Your task to perform on an android device: choose inbox layout in the gmail app Image 0: 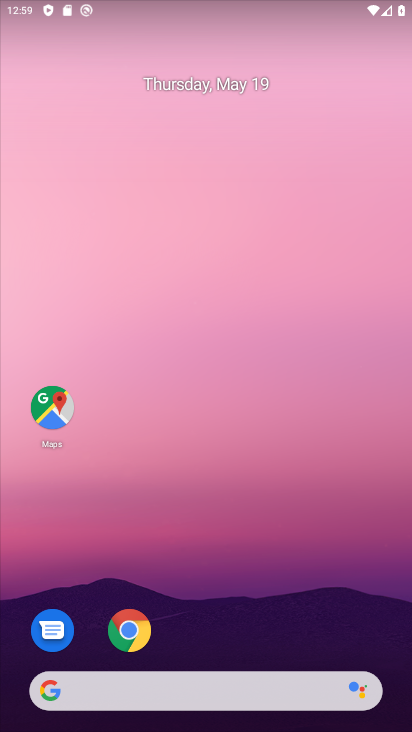
Step 0: drag from (270, 619) to (109, 118)
Your task to perform on an android device: choose inbox layout in the gmail app Image 1: 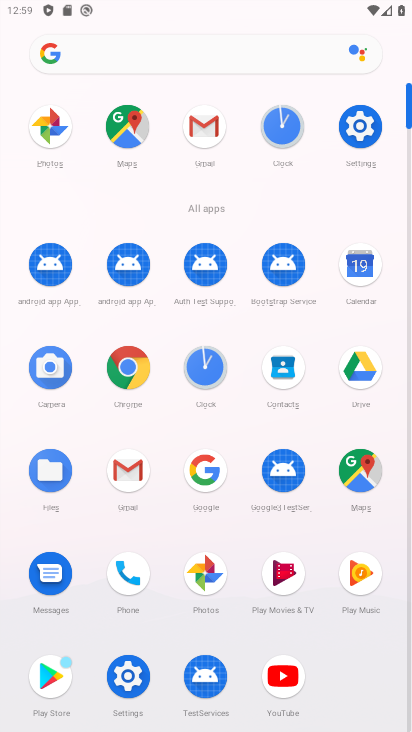
Step 1: click (191, 133)
Your task to perform on an android device: choose inbox layout in the gmail app Image 2: 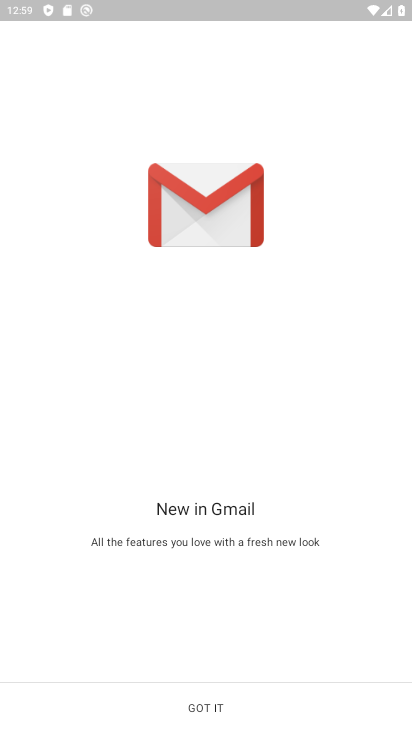
Step 2: click (252, 699)
Your task to perform on an android device: choose inbox layout in the gmail app Image 3: 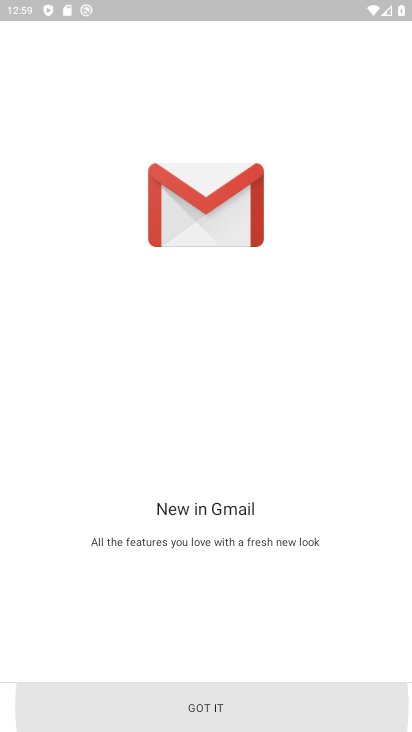
Step 3: click (252, 699)
Your task to perform on an android device: choose inbox layout in the gmail app Image 4: 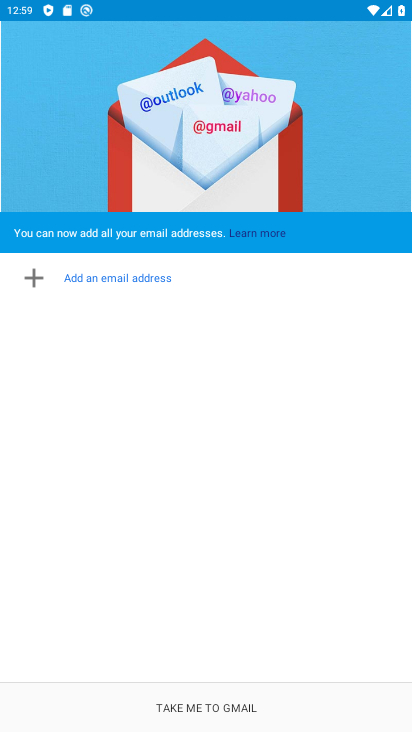
Step 4: click (252, 699)
Your task to perform on an android device: choose inbox layout in the gmail app Image 5: 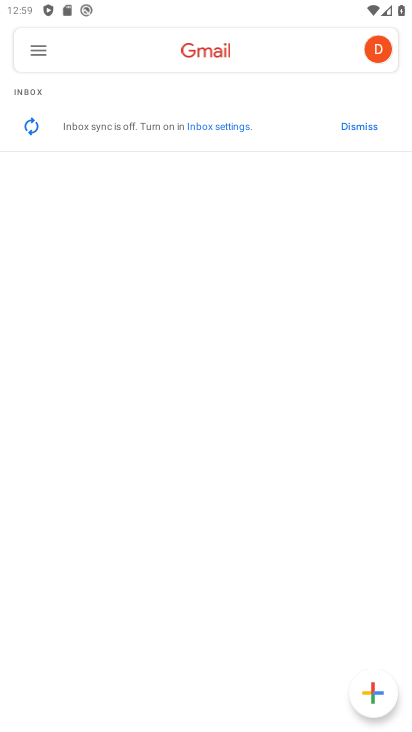
Step 5: click (28, 57)
Your task to perform on an android device: choose inbox layout in the gmail app Image 6: 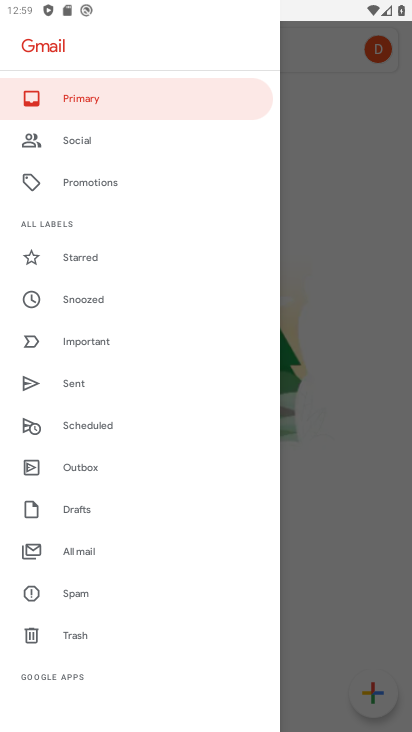
Step 6: drag from (156, 669) to (71, 253)
Your task to perform on an android device: choose inbox layout in the gmail app Image 7: 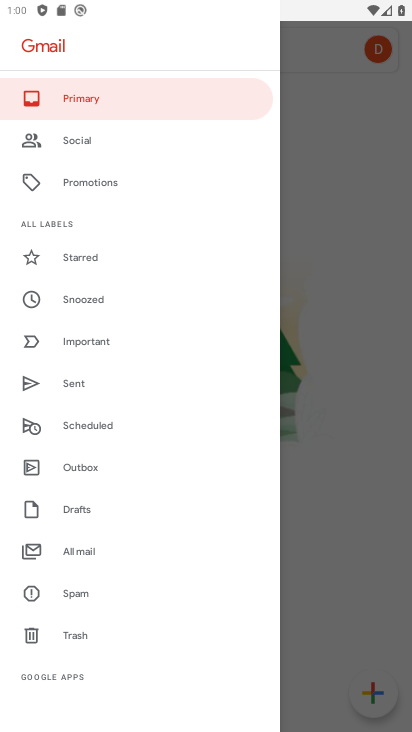
Step 7: drag from (81, 665) to (113, 311)
Your task to perform on an android device: choose inbox layout in the gmail app Image 8: 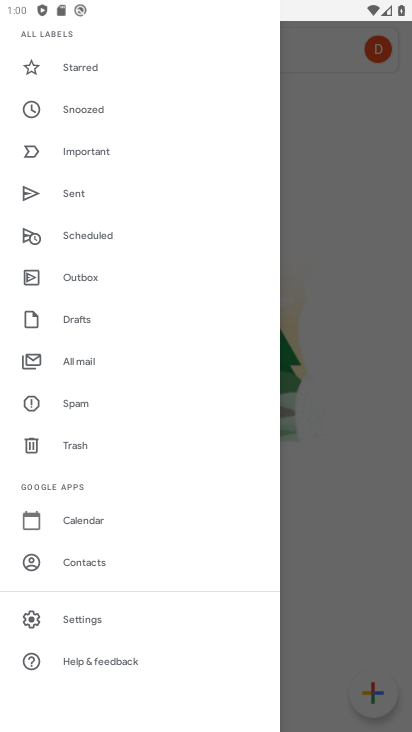
Step 8: click (70, 623)
Your task to perform on an android device: choose inbox layout in the gmail app Image 9: 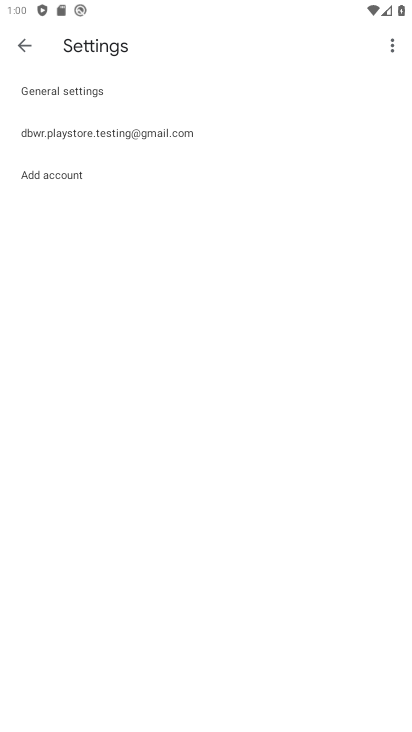
Step 9: click (187, 154)
Your task to perform on an android device: choose inbox layout in the gmail app Image 10: 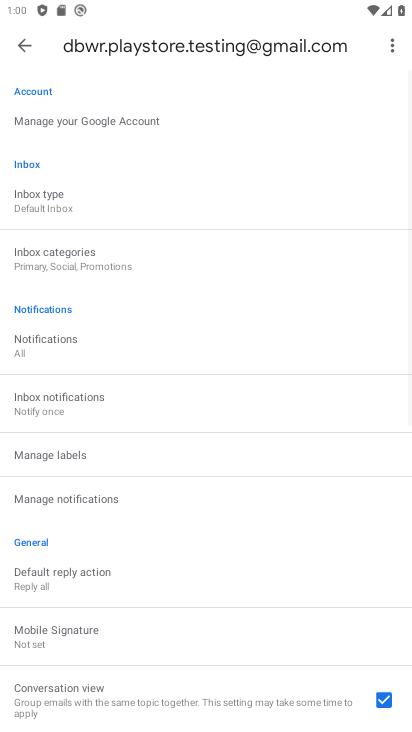
Step 10: click (46, 204)
Your task to perform on an android device: choose inbox layout in the gmail app Image 11: 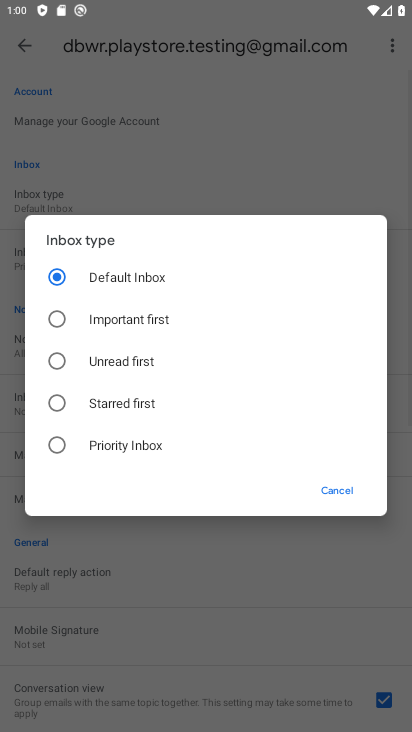
Step 11: click (100, 371)
Your task to perform on an android device: choose inbox layout in the gmail app Image 12: 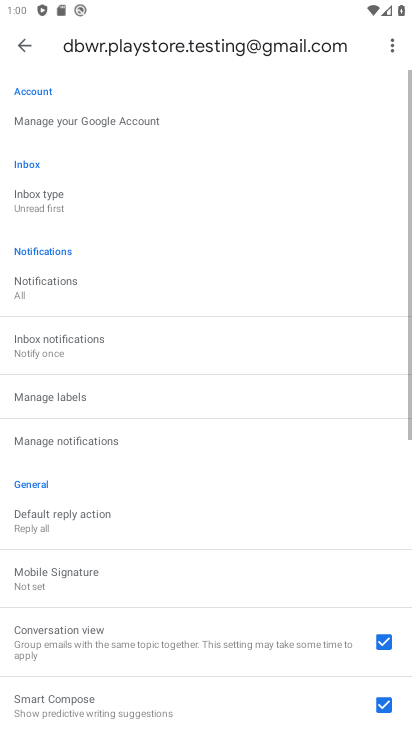
Step 12: task complete